Your task to perform on an android device: turn smart compose on in the gmail app Image 0: 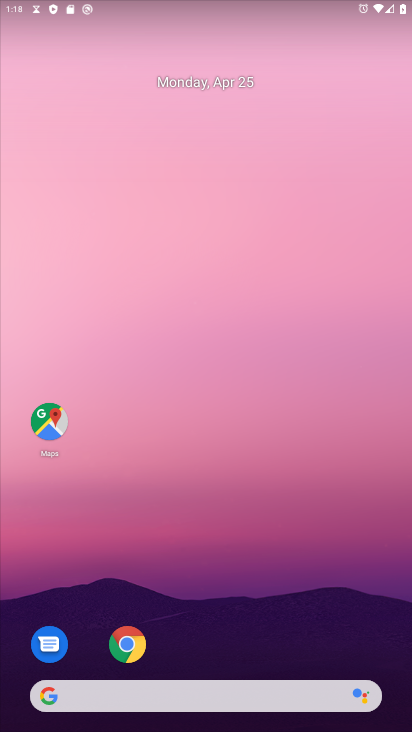
Step 0: drag from (358, 656) to (242, 6)
Your task to perform on an android device: turn smart compose on in the gmail app Image 1: 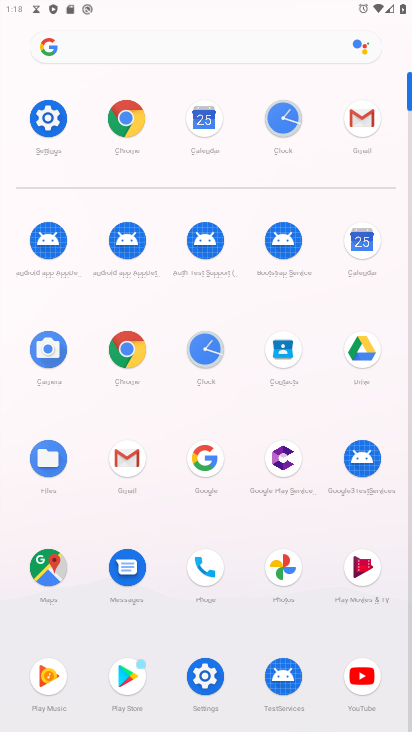
Step 1: click (360, 121)
Your task to perform on an android device: turn smart compose on in the gmail app Image 2: 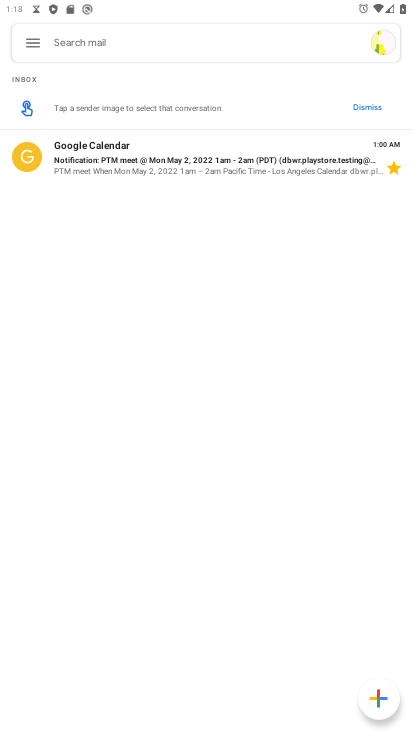
Step 2: click (25, 42)
Your task to perform on an android device: turn smart compose on in the gmail app Image 3: 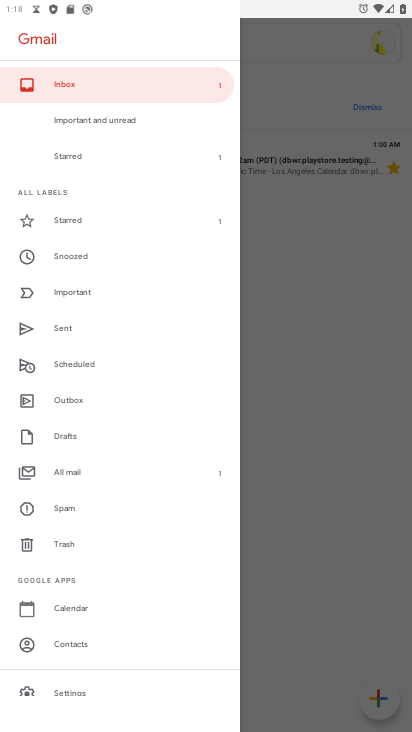
Step 3: click (88, 698)
Your task to perform on an android device: turn smart compose on in the gmail app Image 4: 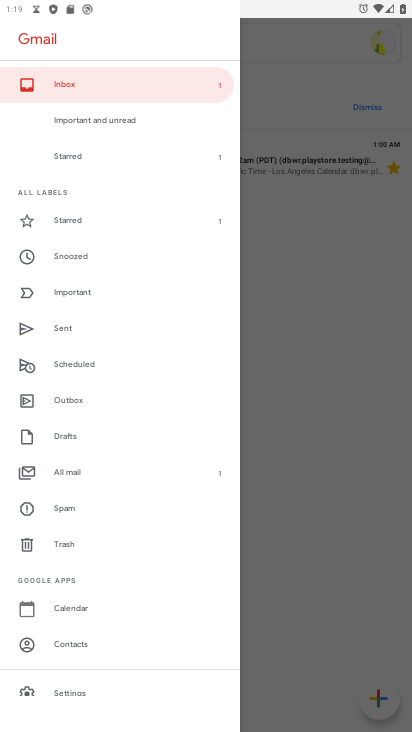
Step 4: click (68, 696)
Your task to perform on an android device: turn smart compose on in the gmail app Image 5: 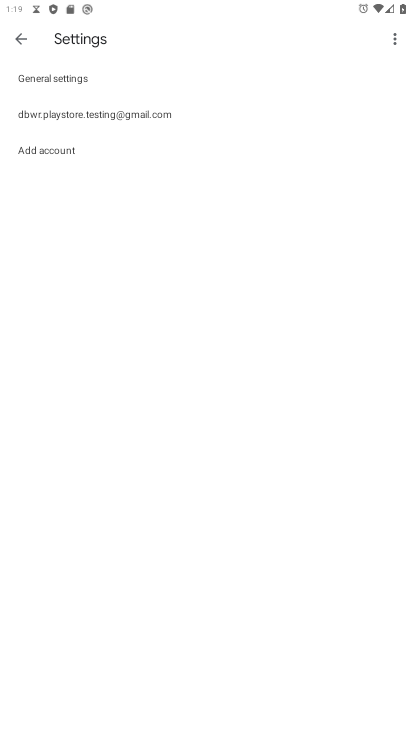
Step 5: click (49, 110)
Your task to perform on an android device: turn smart compose on in the gmail app Image 6: 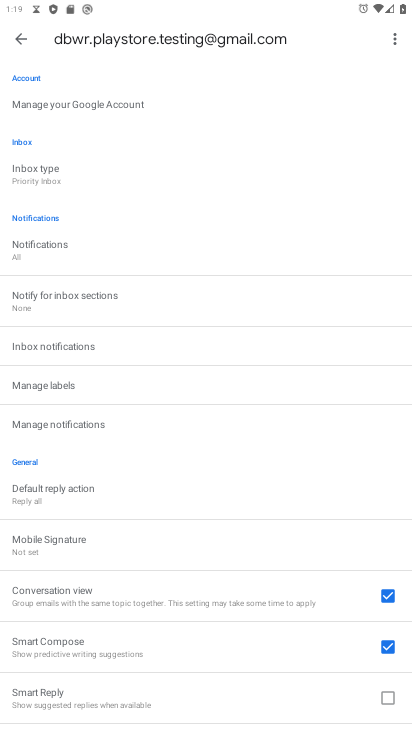
Step 6: task complete